Your task to perform on an android device: Go to wifi settings Image 0: 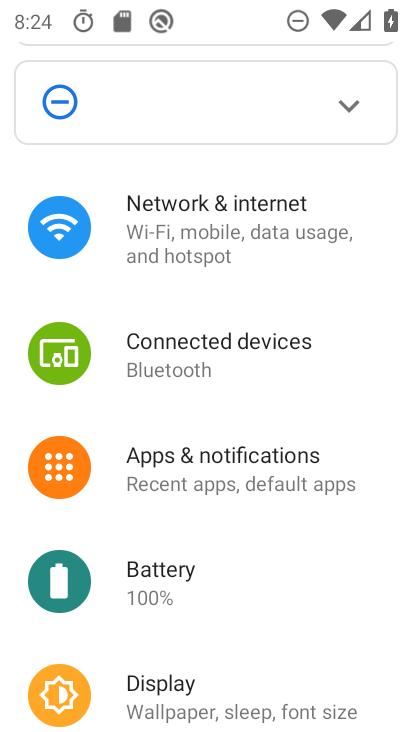
Step 0: press home button
Your task to perform on an android device: Go to wifi settings Image 1: 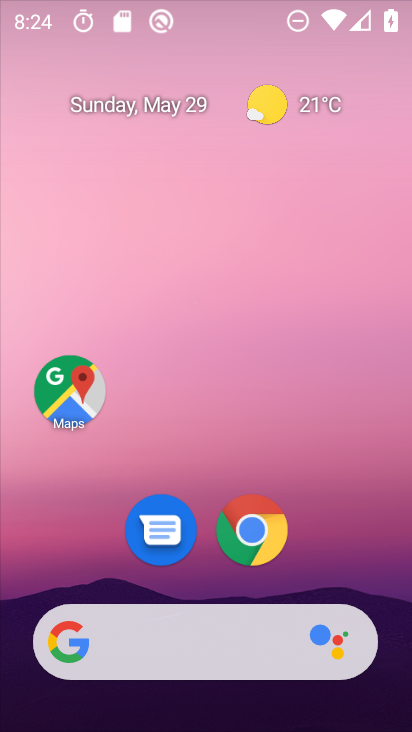
Step 1: drag from (233, 652) to (272, 107)
Your task to perform on an android device: Go to wifi settings Image 2: 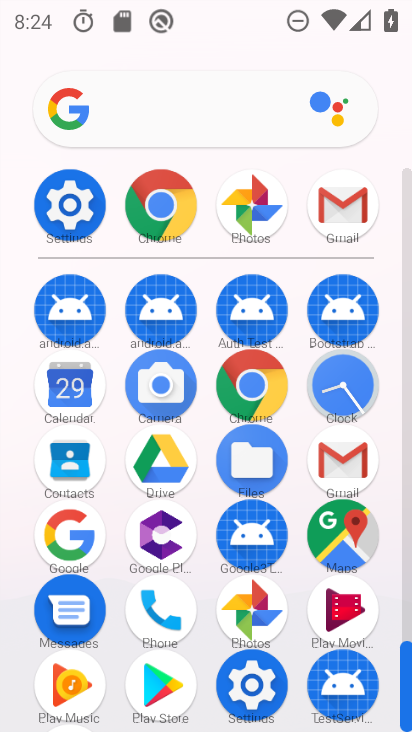
Step 2: click (54, 217)
Your task to perform on an android device: Go to wifi settings Image 3: 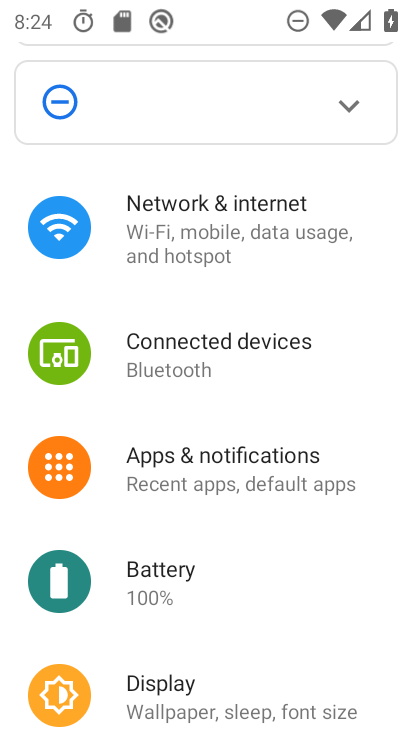
Step 3: click (219, 230)
Your task to perform on an android device: Go to wifi settings Image 4: 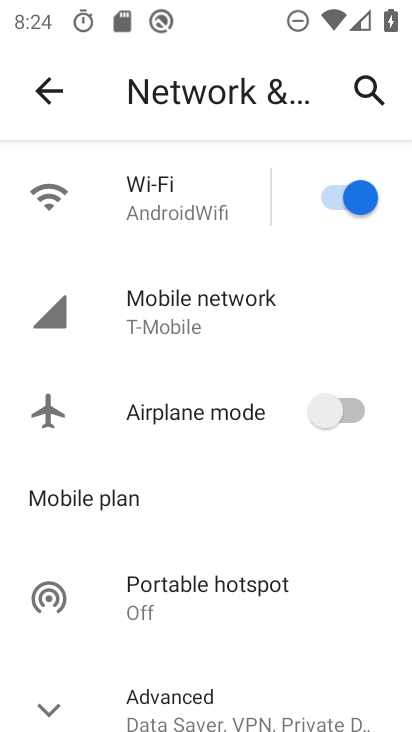
Step 4: click (189, 189)
Your task to perform on an android device: Go to wifi settings Image 5: 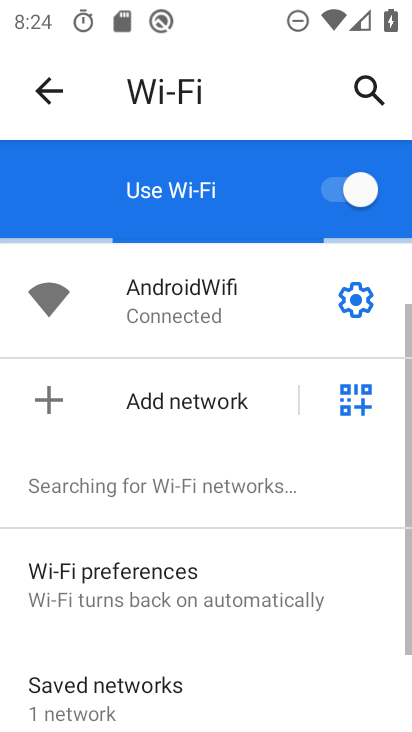
Step 5: task complete